Your task to perform on an android device: Search for custom wallets on Etsy. Image 0: 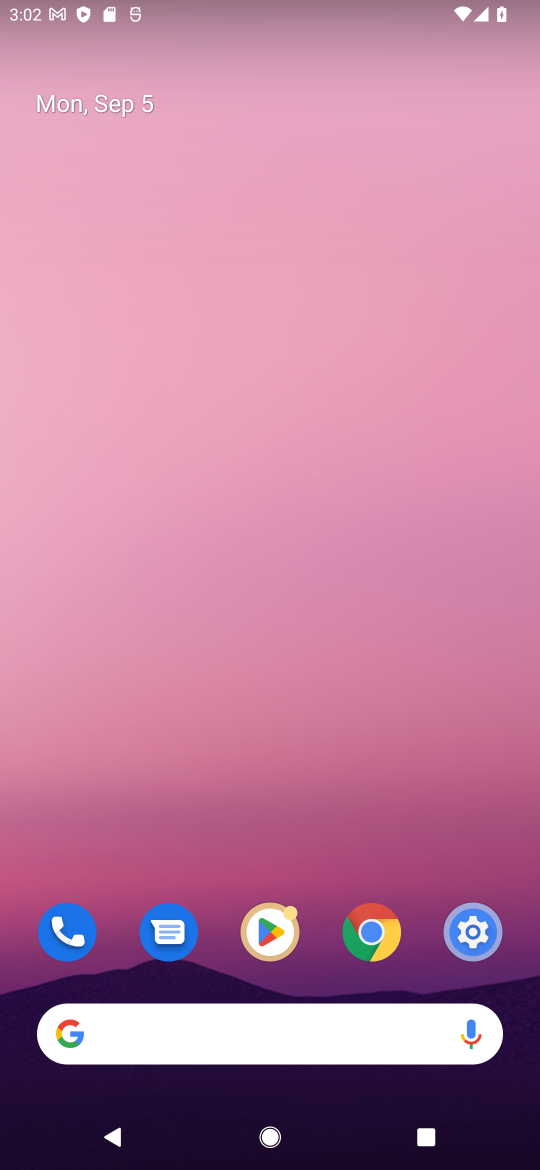
Step 0: click (292, 1042)
Your task to perform on an android device: Search for custom wallets on Etsy. Image 1: 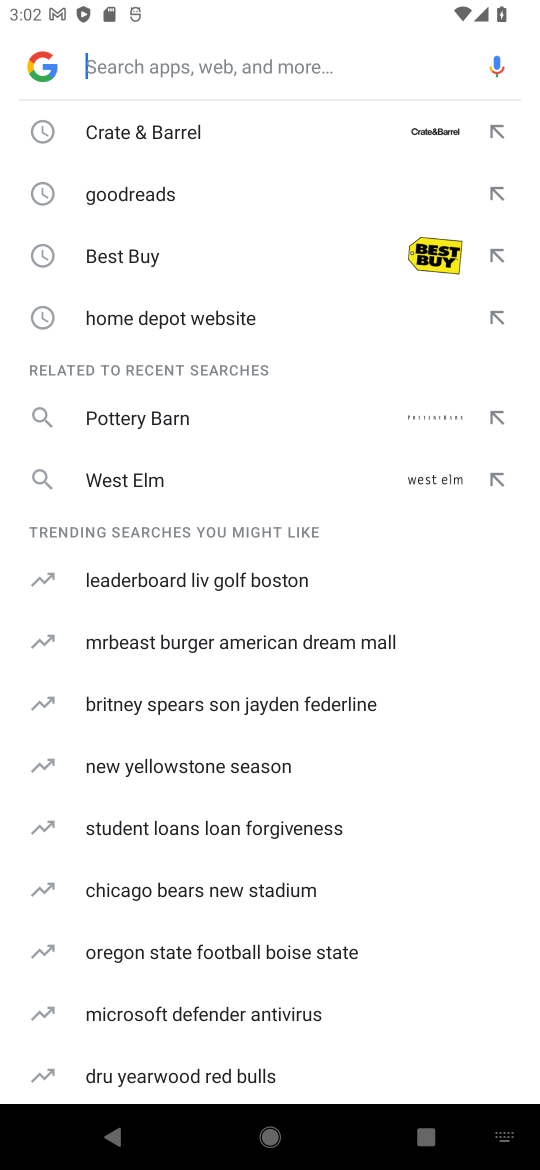
Step 1: type "Etsy"
Your task to perform on an android device: Search for custom wallets on Etsy. Image 2: 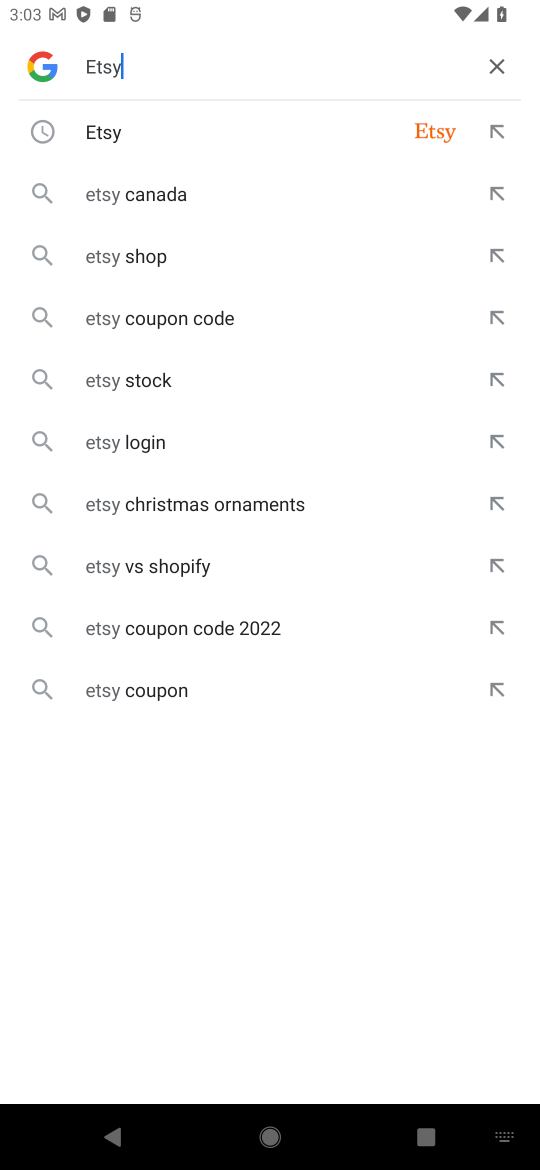
Step 2: click (170, 136)
Your task to perform on an android device: Search for custom wallets on Etsy. Image 3: 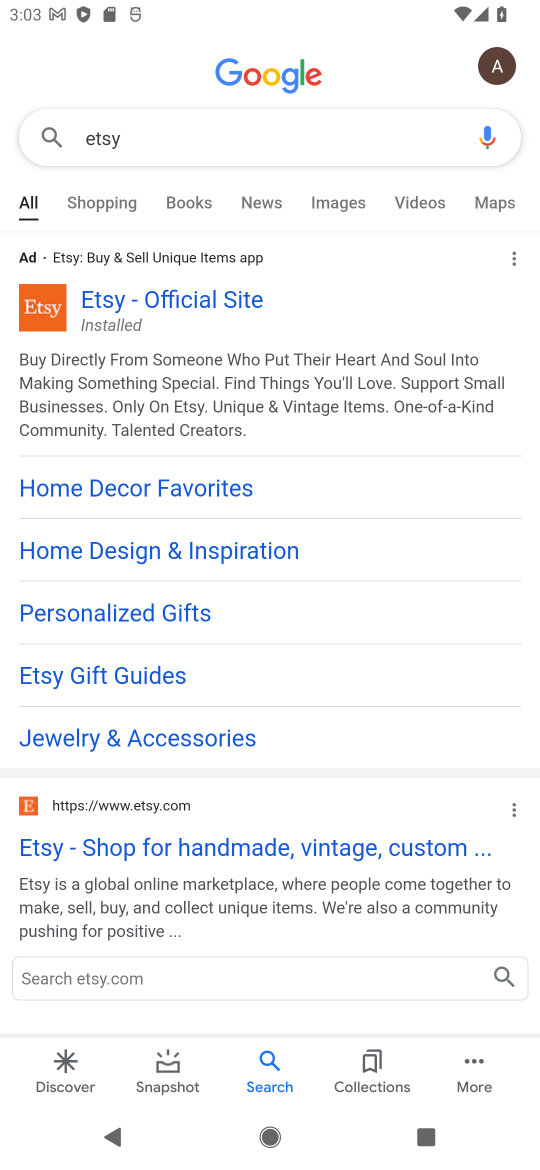
Step 3: click (118, 859)
Your task to perform on an android device: Search for custom wallets on Etsy. Image 4: 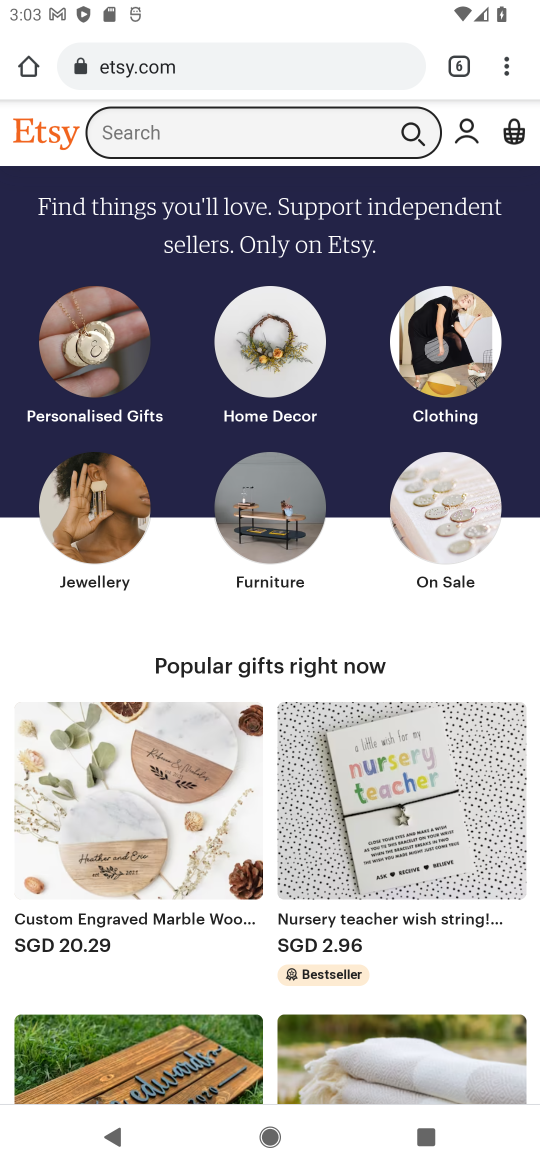
Step 4: click (275, 126)
Your task to perform on an android device: Search for custom wallets on Etsy. Image 5: 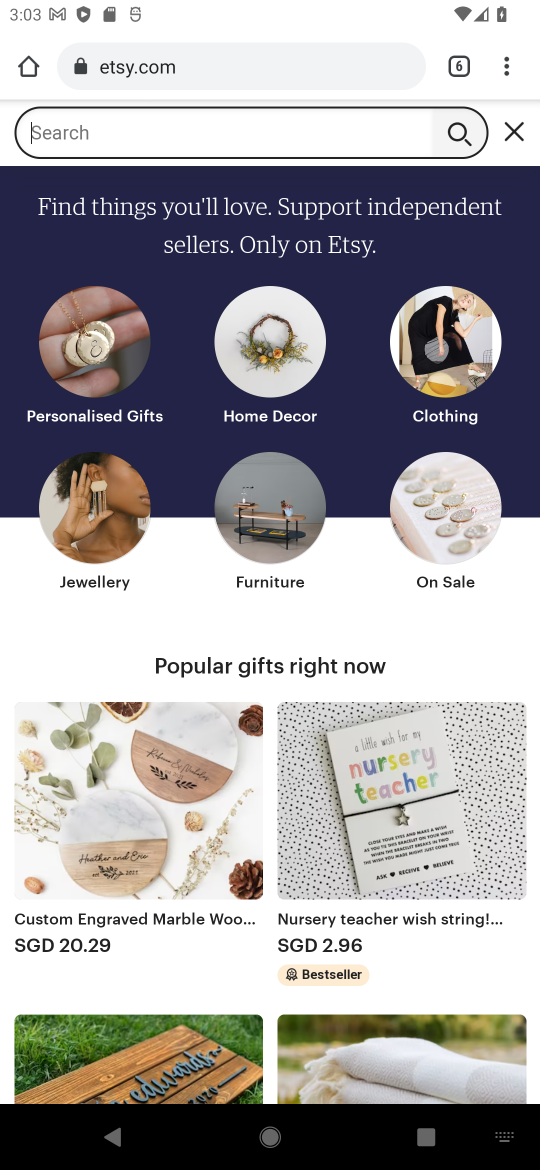
Step 5: type "custom wallets"
Your task to perform on an android device: Search for custom wallets on Etsy. Image 6: 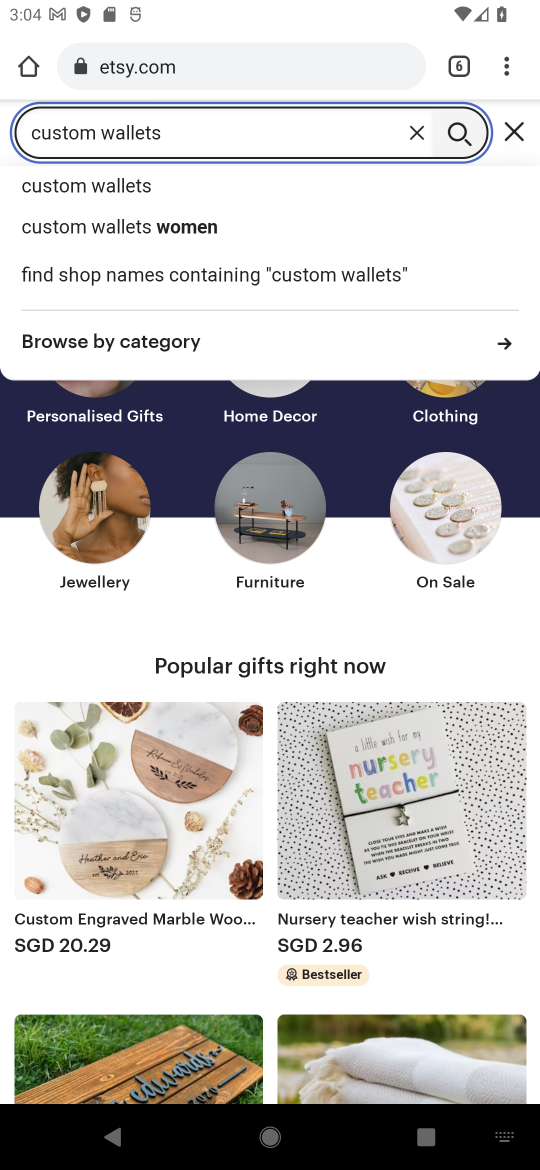
Step 6: click (186, 183)
Your task to perform on an android device: Search for custom wallets on Etsy. Image 7: 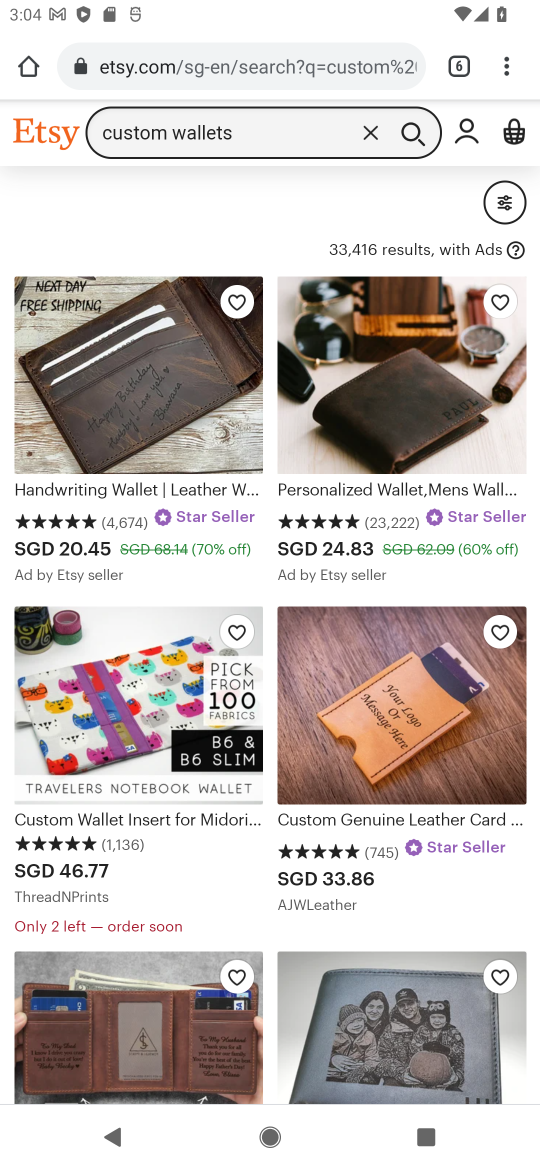
Step 7: task complete